Your task to perform on an android device: show emergency info Image 0: 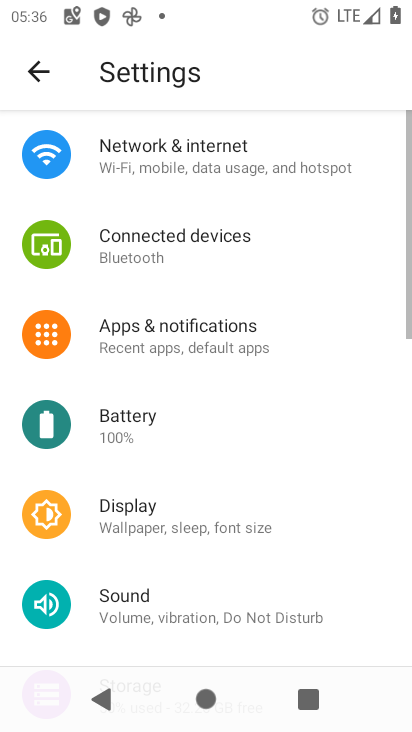
Step 0: drag from (269, 532) to (184, 76)
Your task to perform on an android device: show emergency info Image 1: 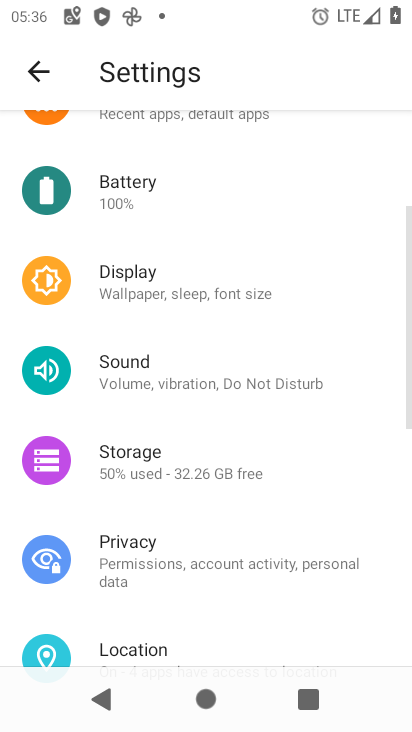
Step 1: drag from (215, 310) to (166, 94)
Your task to perform on an android device: show emergency info Image 2: 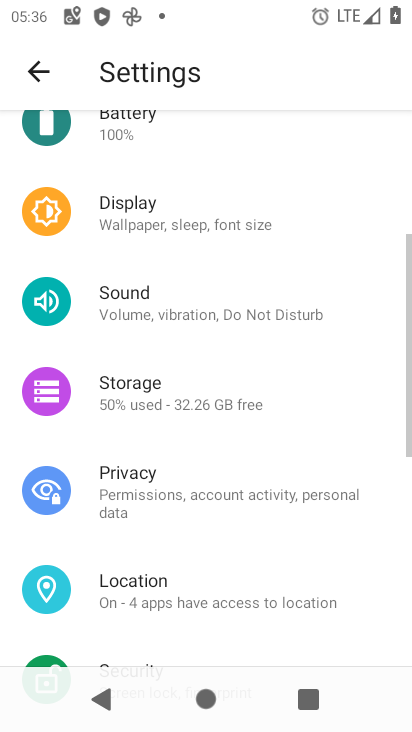
Step 2: drag from (227, 518) to (183, 142)
Your task to perform on an android device: show emergency info Image 3: 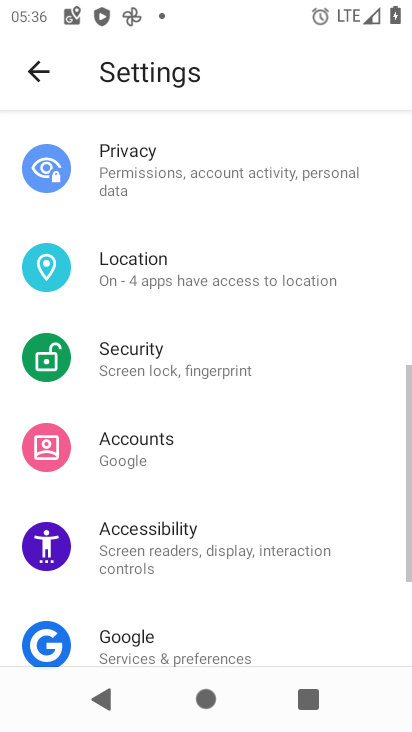
Step 3: drag from (214, 518) to (199, 166)
Your task to perform on an android device: show emergency info Image 4: 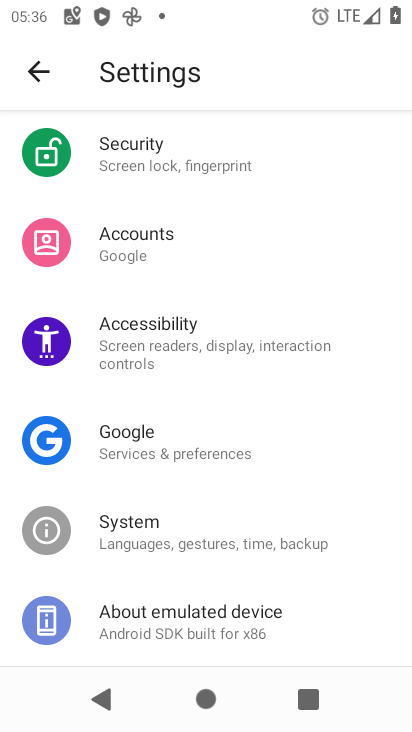
Step 4: click (202, 600)
Your task to perform on an android device: show emergency info Image 5: 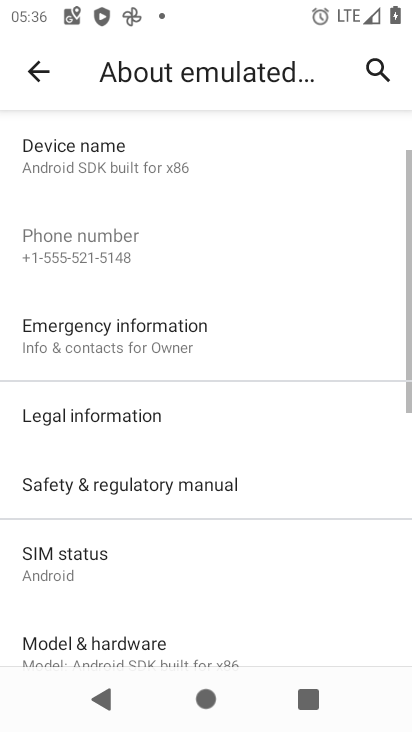
Step 5: click (188, 348)
Your task to perform on an android device: show emergency info Image 6: 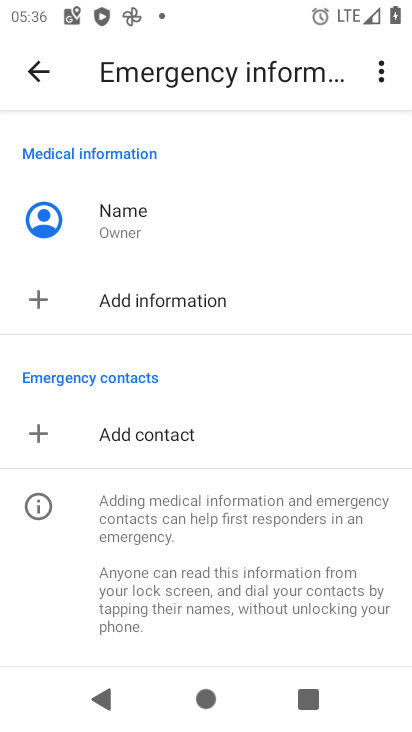
Step 6: task complete